Your task to perform on an android device: open a new tab in the chrome app Image 0: 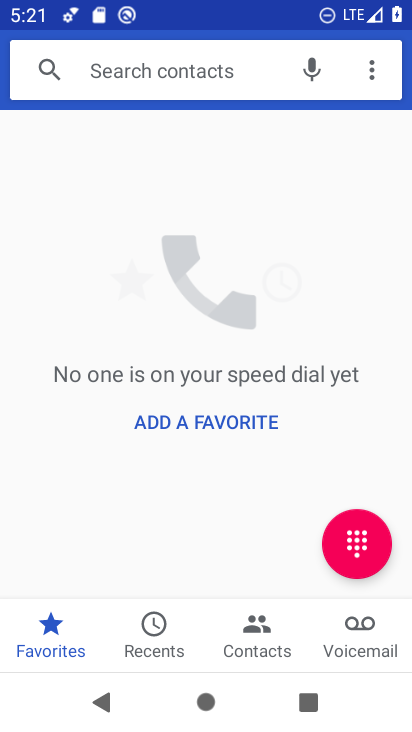
Step 0: press home button
Your task to perform on an android device: open a new tab in the chrome app Image 1: 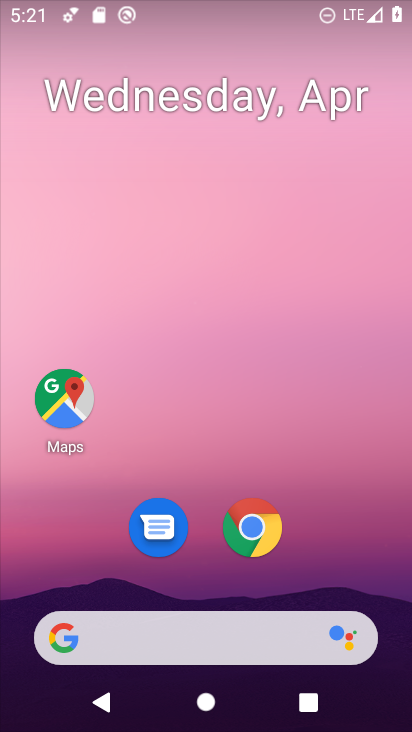
Step 1: click (256, 528)
Your task to perform on an android device: open a new tab in the chrome app Image 2: 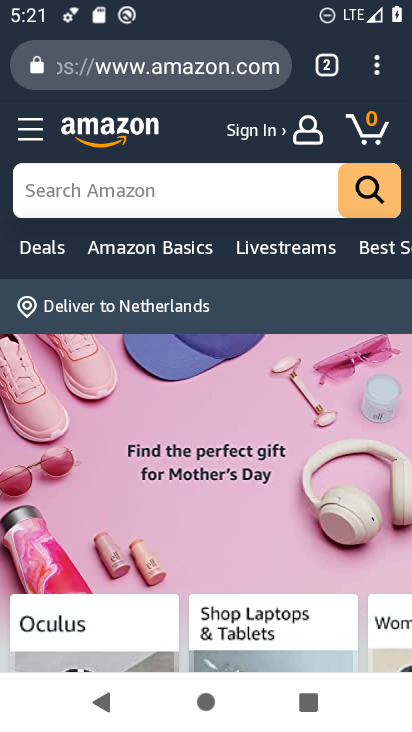
Step 2: click (384, 59)
Your task to perform on an android device: open a new tab in the chrome app Image 3: 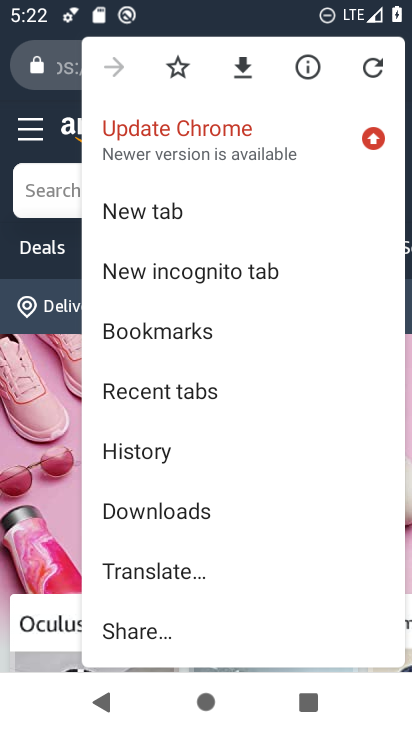
Step 3: click (125, 221)
Your task to perform on an android device: open a new tab in the chrome app Image 4: 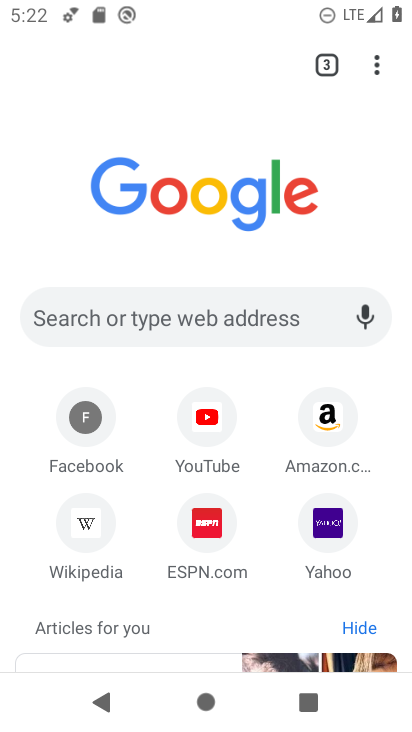
Step 4: task complete